Your task to perform on an android device: Search for bose soundlink on bestbuy, select the first entry, add it to the cart, then select checkout. Image 0: 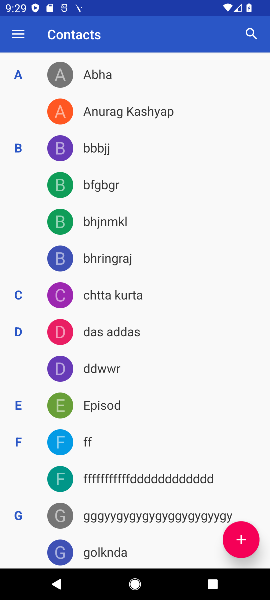
Step 0: task complete